Your task to perform on an android device: Go to internet settings Image 0: 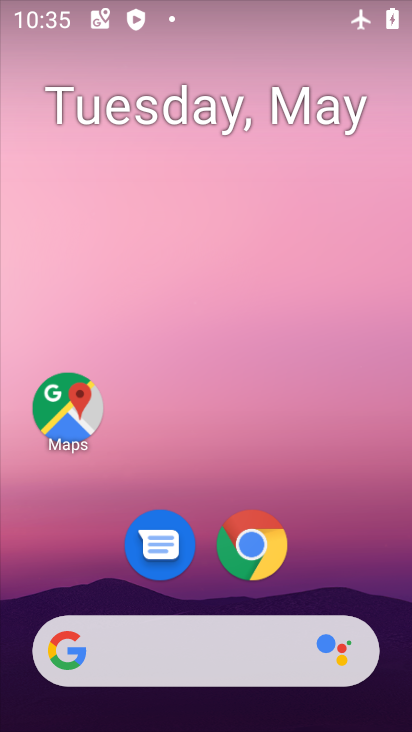
Step 0: drag from (172, 598) to (296, 160)
Your task to perform on an android device: Go to internet settings Image 1: 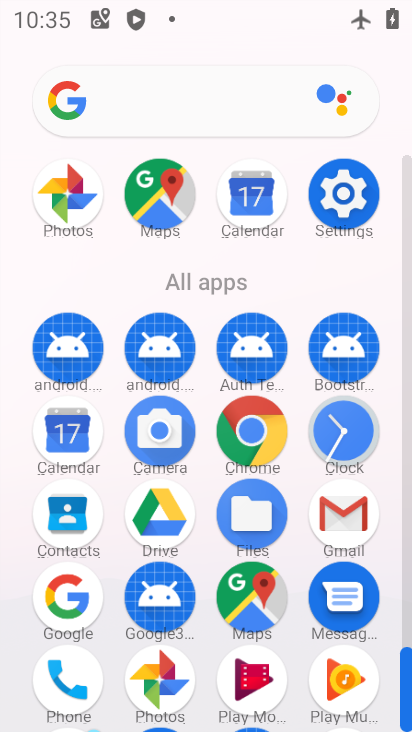
Step 1: click (343, 220)
Your task to perform on an android device: Go to internet settings Image 2: 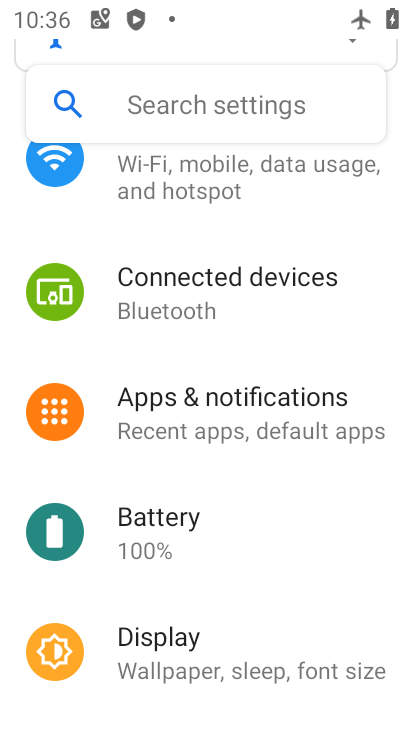
Step 2: drag from (151, 284) to (126, 725)
Your task to perform on an android device: Go to internet settings Image 3: 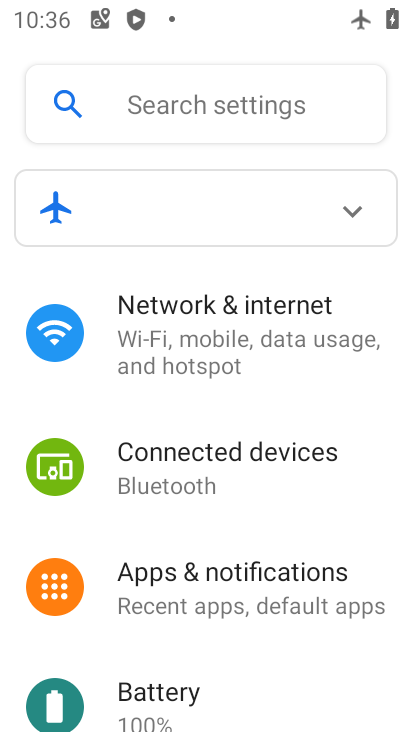
Step 3: click (227, 338)
Your task to perform on an android device: Go to internet settings Image 4: 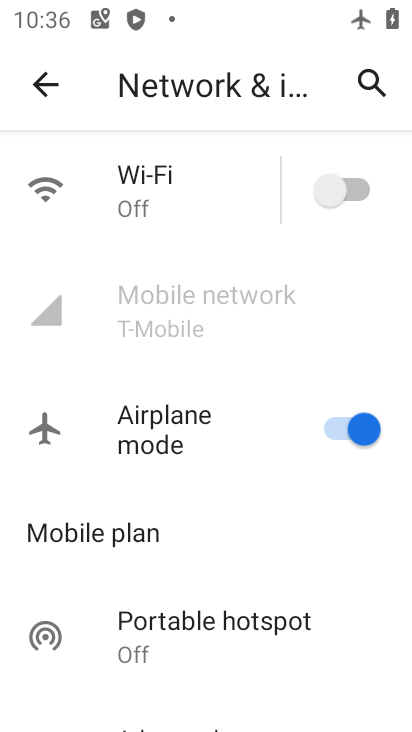
Step 4: click (232, 298)
Your task to perform on an android device: Go to internet settings Image 5: 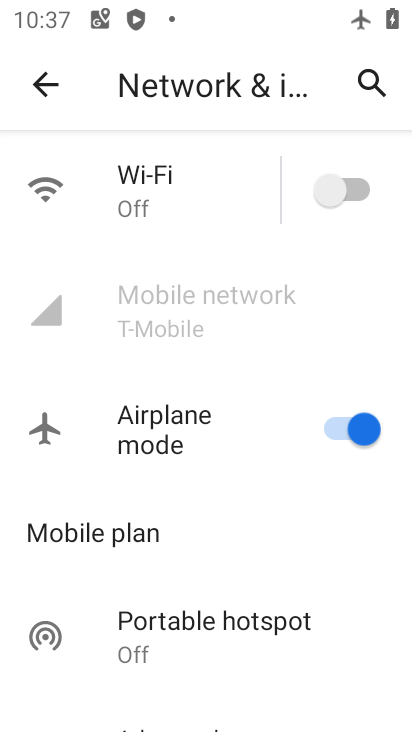
Step 5: click (187, 308)
Your task to perform on an android device: Go to internet settings Image 6: 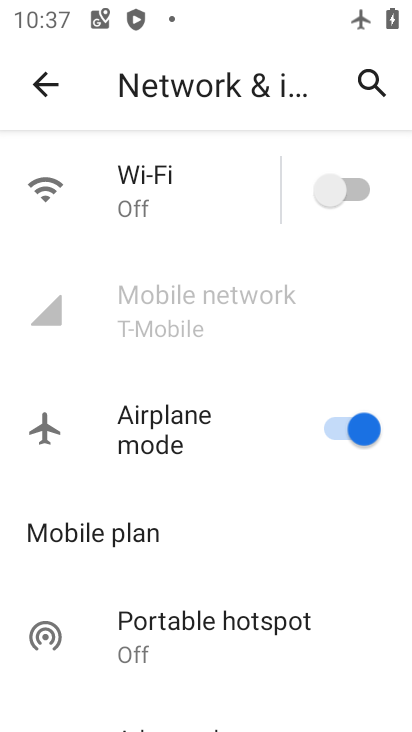
Step 6: task complete